Your task to perform on an android device: Is it going to rain today? Image 0: 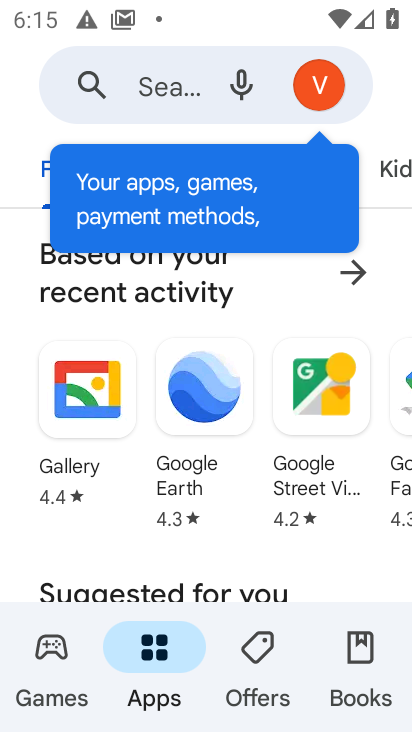
Step 0: press home button
Your task to perform on an android device: Is it going to rain today? Image 1: 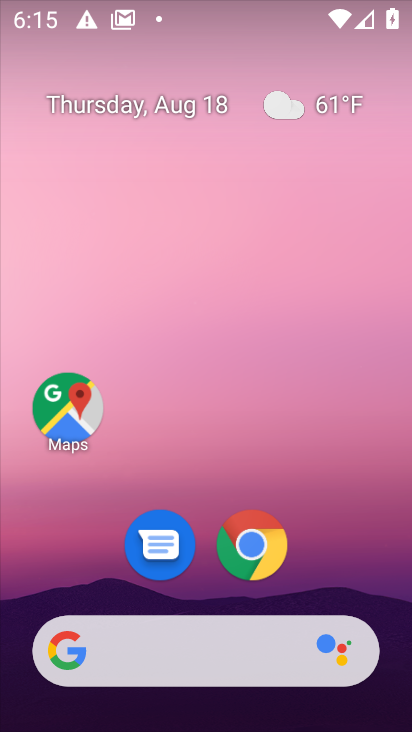
Step 1: drag from (329, 570) to (239, 25)
Your task to perform on an android device: Is it going to rain today? Image 2: 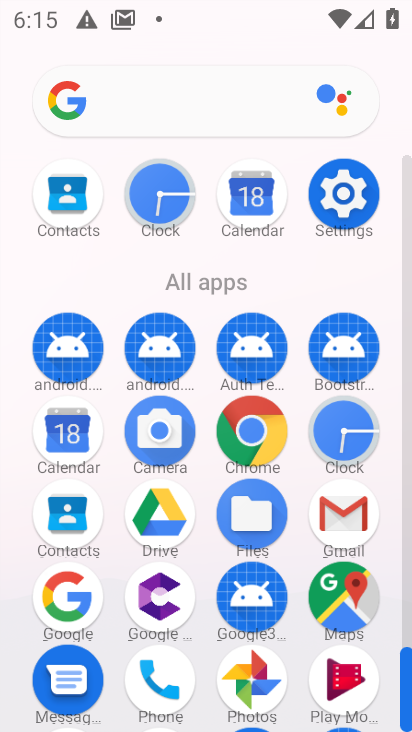
Step 2: click (60, 593)
Your task to perform on an android device: Is it going to rain today? Image 3: 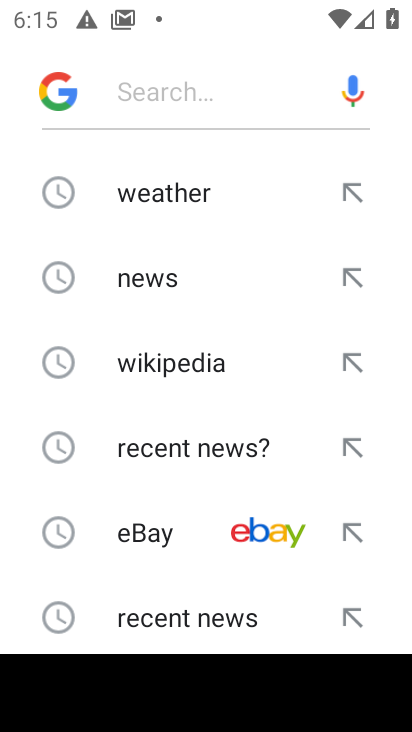
Step 3: click (138, 193)
Your task to perform on an android device: Is it going to rain today? Image 4: 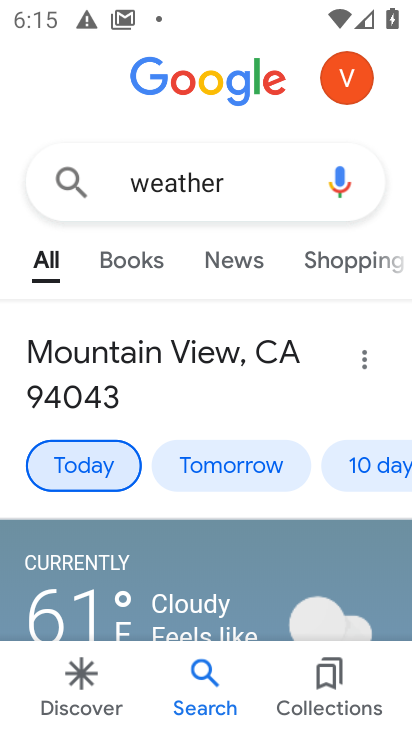
Step 4: drag from (238, 559) to (211, 298)
Your task to perform on an android device: Is it going to rain today? Image 5: 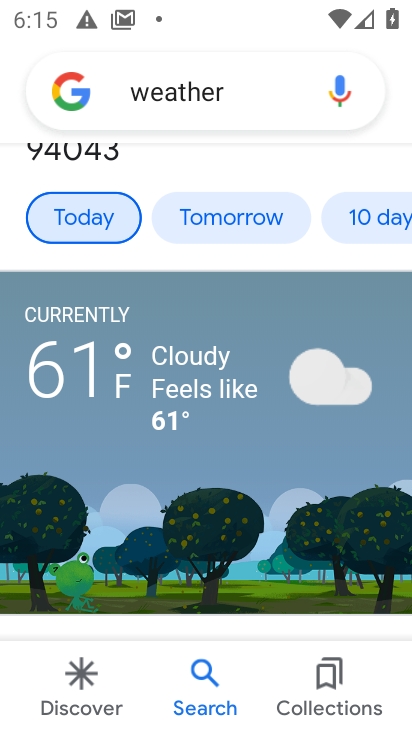
Step 5: drag from (232, 522) to (230, 264)
Your task to perform on an android device: Is it going to rain today? Image 6: 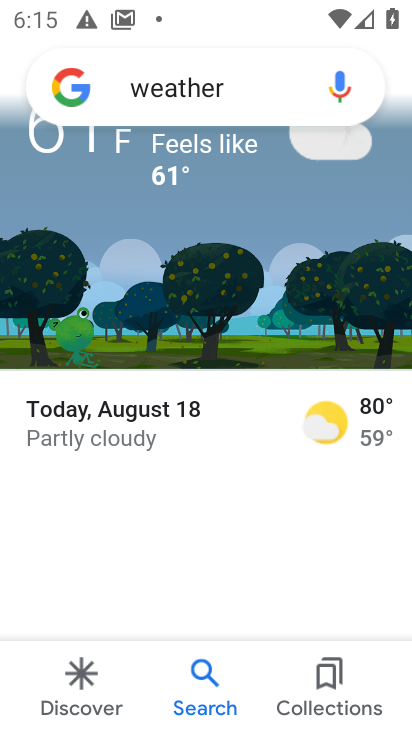
Step 6: click (230, 264)
Your task to perform on an android device: Is it going to rain today? Image 7: 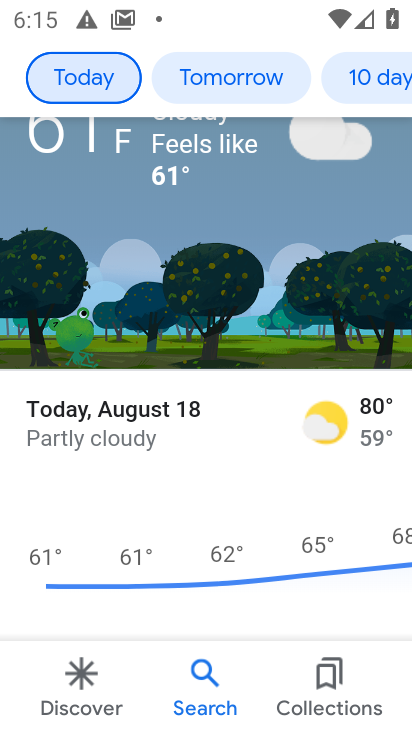
Step 7: task complete